Your task to perform on an android device: turn vacation reply on in the gmail app Image 0: 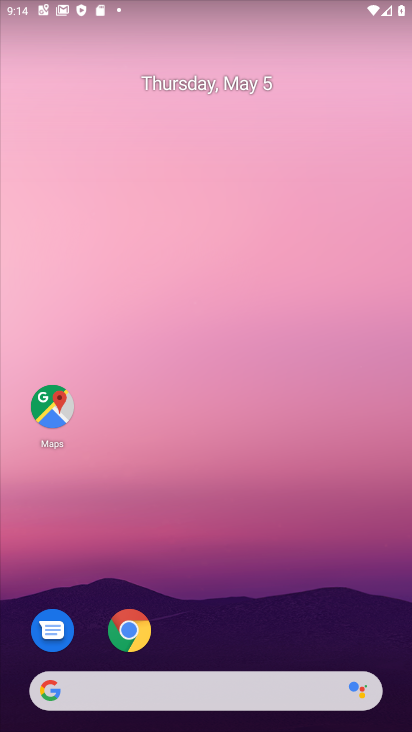
Step 0: drag from (186, 583) to (83, 130)
Your task to perform on an android device: turn vacation reply on in the gmail app Image 1: 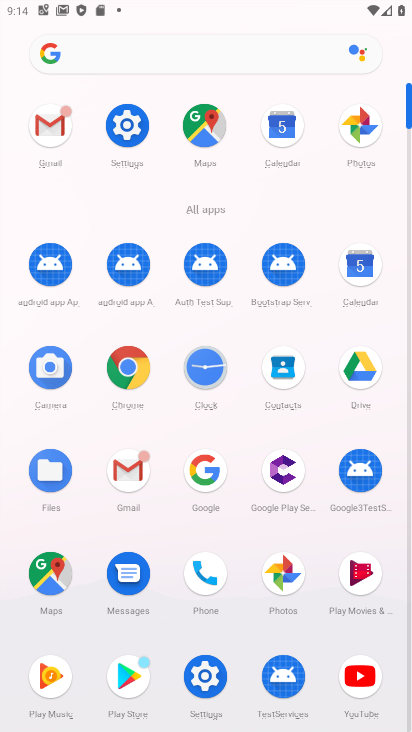
Step 1: click (53, 125)
Your task to perform on an android device: turn vacation reply on in the gmail app Image 2: 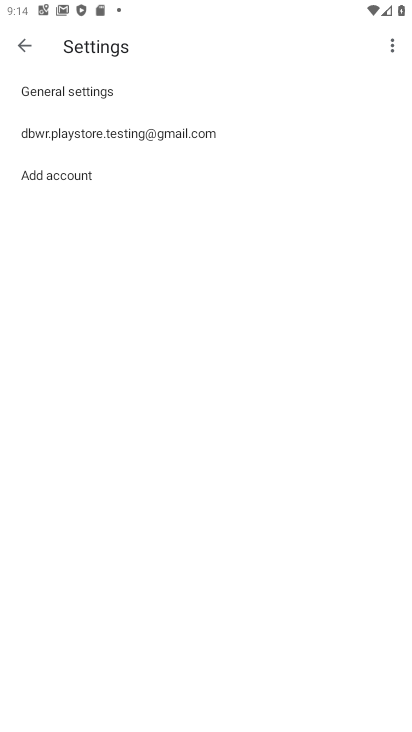
Step 2: click (134, 129)
Your task to perform on an android device: turn vacation reply on in the gmail app Image 3: 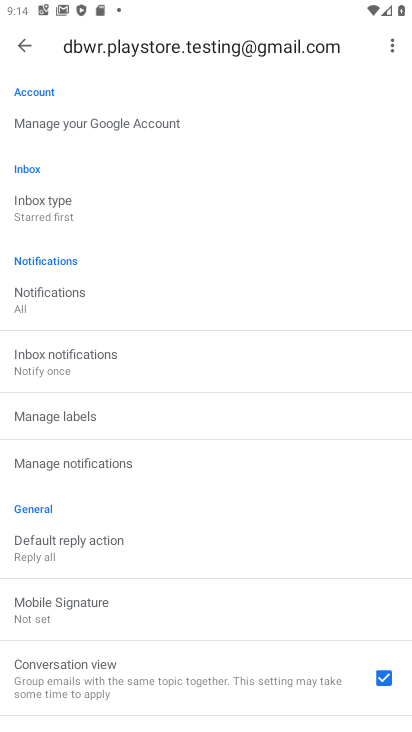
Step 3: drag from (85, 644) to (92, 219)
Your task to perform on an android device: turn vacation reply on in the gmail app Image 4: 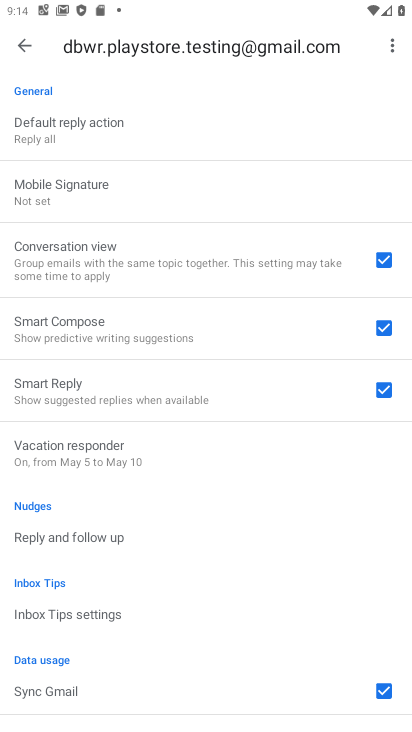
Step 4: click (89, 455)
Your task to perform on an android device: turn vacation reply on in the gmail app Image 5: 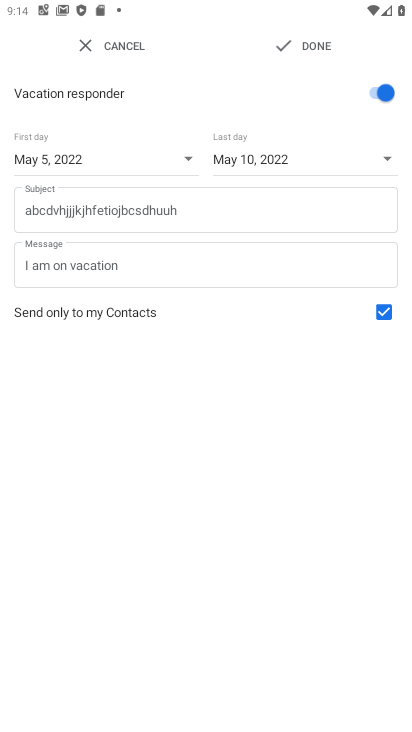
Step 5: task complete